Your task to perform on an android device: turn off sleep mode Image 0: 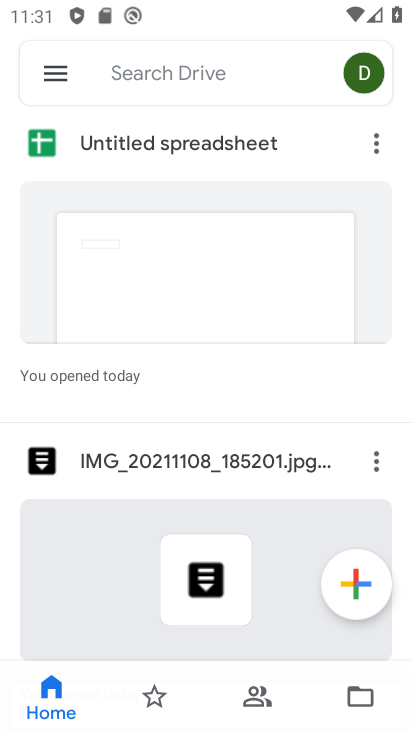
Step 0: press home button
Your task to perform on an android device: turn off sleep mode Image 1: 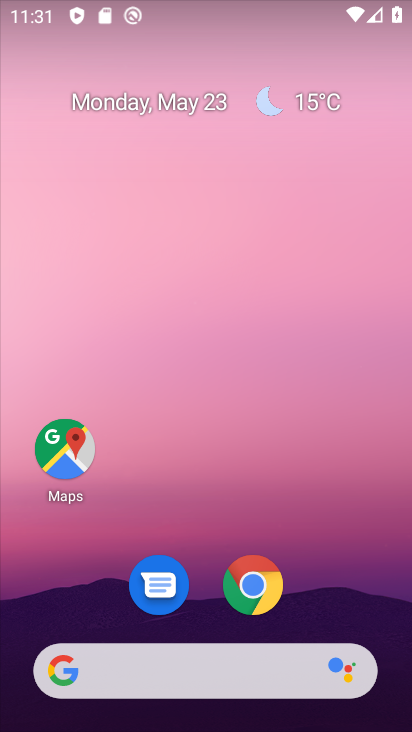
Step 1: drag from (212, 430) to (247, 4)
Your task to perform on an android device: turn off sleep mode Image 2: 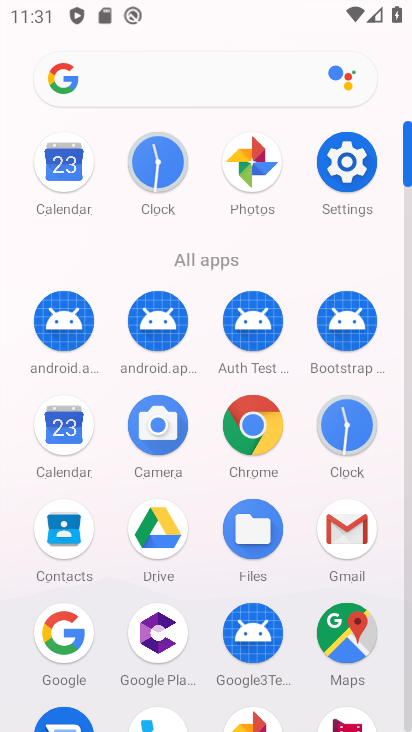
Step 2: click (346, 164)
Your task to perform on an android device: turn off sleep mode Image 3: 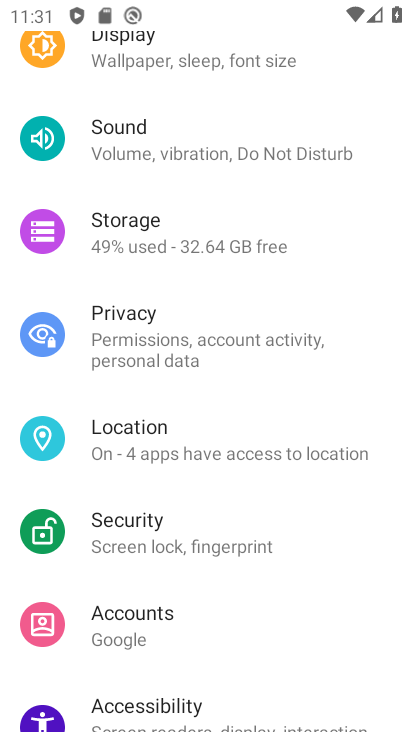
Step 3: click (221, 62)
Your task to perform on an android device: turn off sleep mode Image 4: 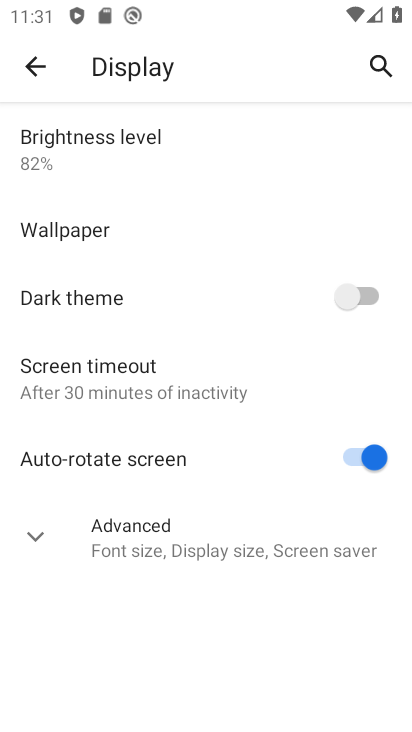
Step 4: click (38, 534)
Your task to perform on an android device: turn off sleep mode Image 5: 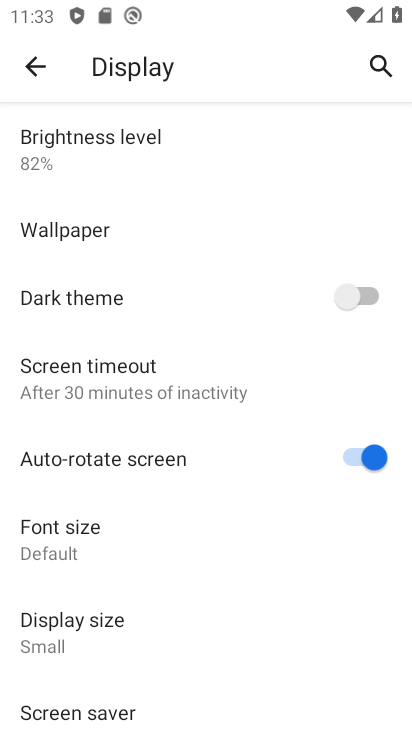
Step 5: task complete